Your task to perform on an android device: set an alarm Image 0: 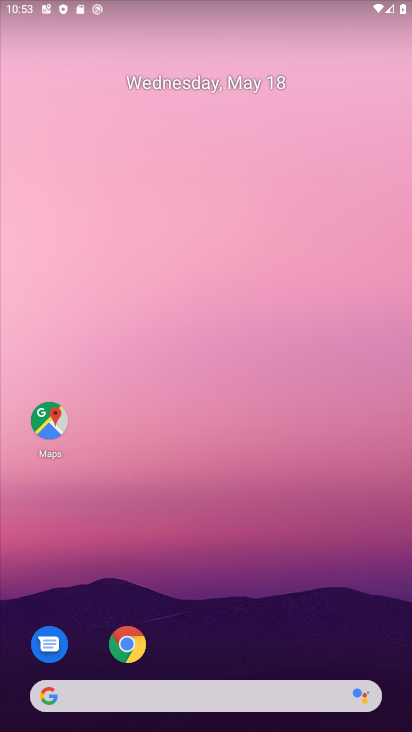
Step 0: drag from (283, 621) to (192, 72)
Your task to perform on an android device: set an alarm Image 1: 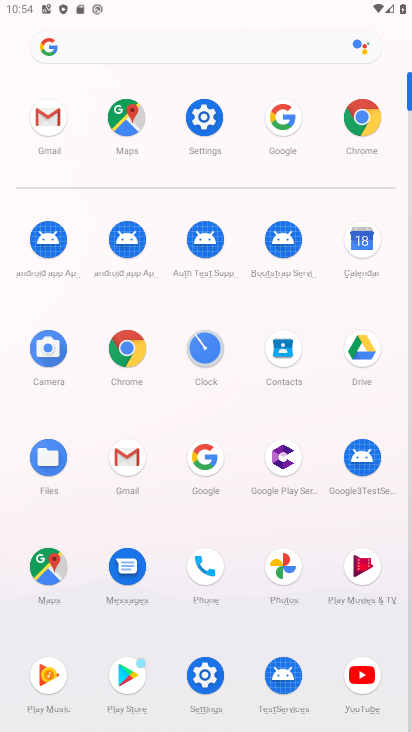
Step 1: click (213, 360)
Your task to perform on an android device: set an alarm Image 2: 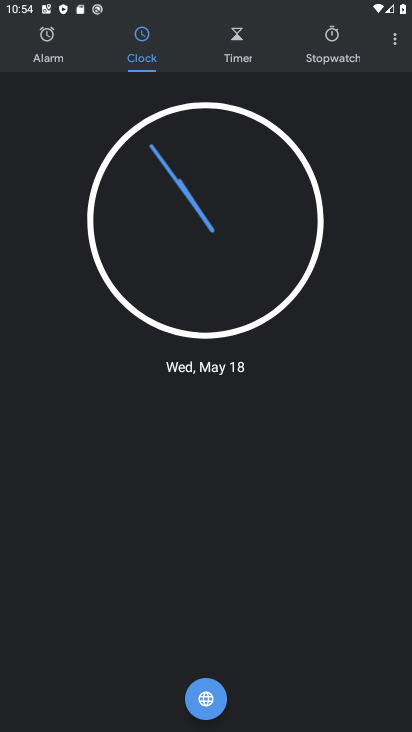
Step 2: click (50, 34)
Your task to perform on an android device: set an alarm Image 3: 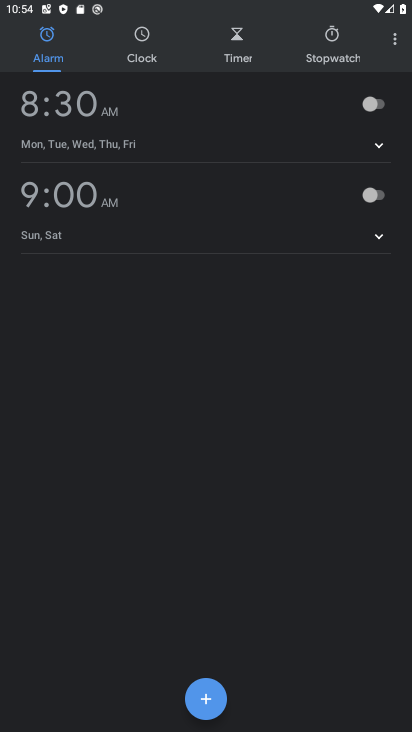
Step 3: click (389, 105)
Your task to perform on an android device: set an alarm Image 4: 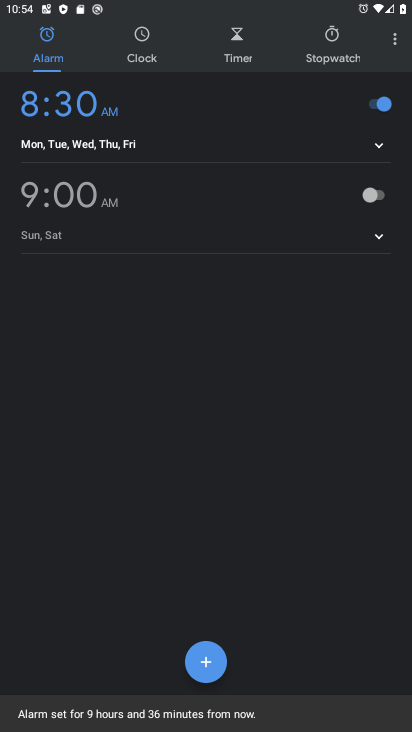
Step 4: task complete